Your task to perform on an android device: Open sound settings Image 0: 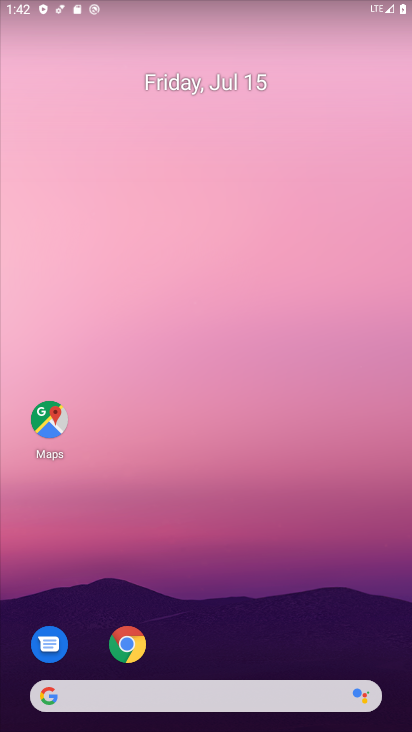
Step 0: drag from (349, 630) to (225, 17)
Your task to perform on an android device: Open sound settings Image 1: 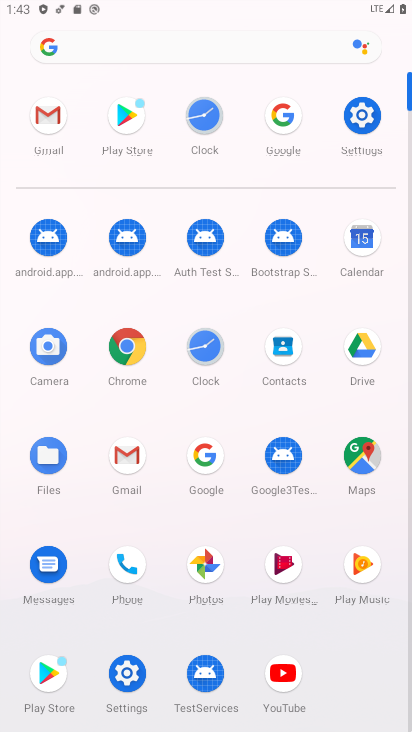
Step 1: click (146, 666)
Your task to perform on an android device: Open sound settings Image 2: 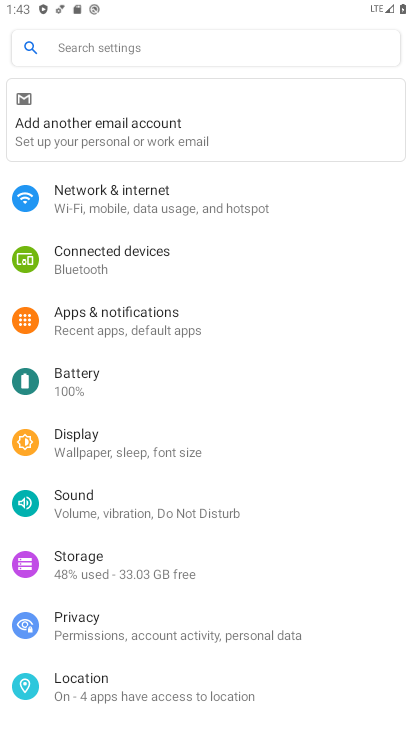
Step 2: click (65, 498)
Your task to perform on an android device: Open sound settings Image 3: 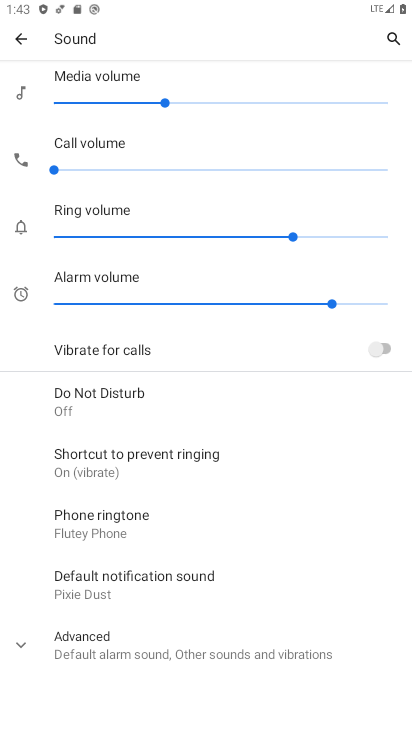
Step 3: task complete